Your task to perform on an android device: add a contact in the contacts app Image 0: 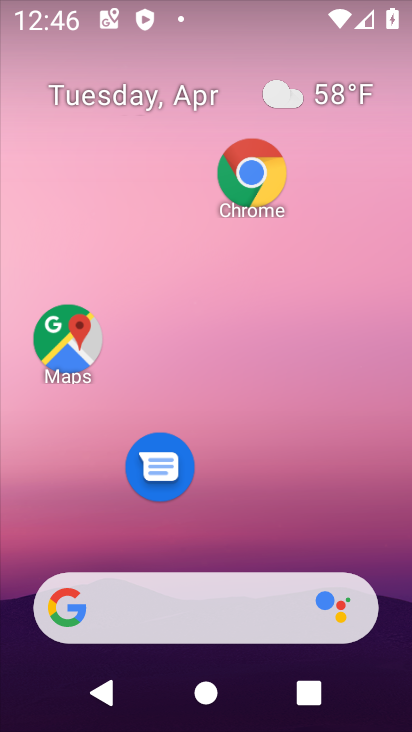
Step 0: drag from (272, 428) to (302, 51)
Your task to perform on an android device: add a contact in the contacts app Image 1: 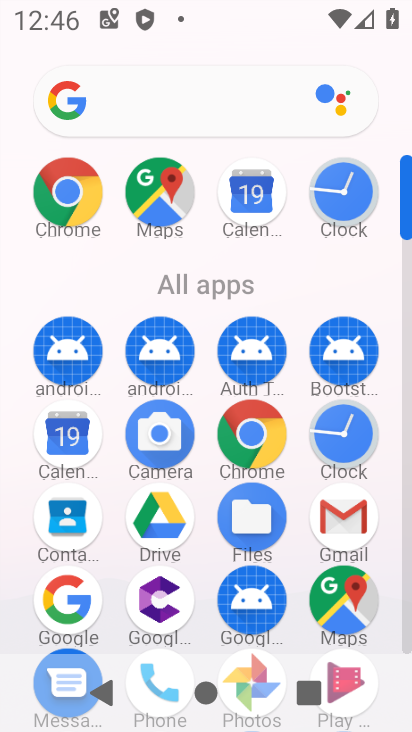
Step 1: click (43, 526)
Your task to perform on an android device: add a contact in the contacts app Image 2: 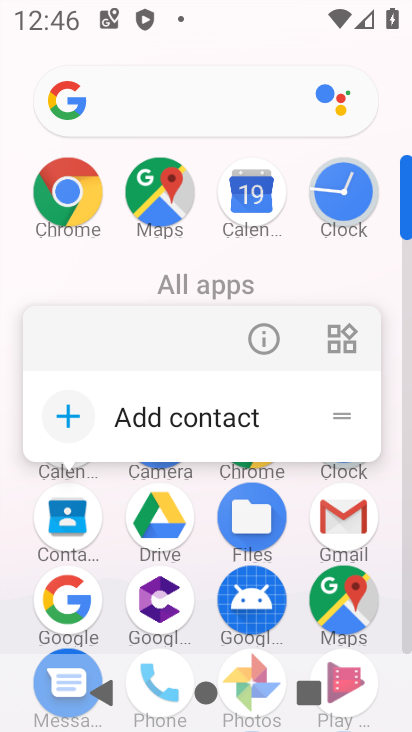
Step 2: click (74, 504)
Your task to perform on an android device: add a contact in the contacts app Image 3: 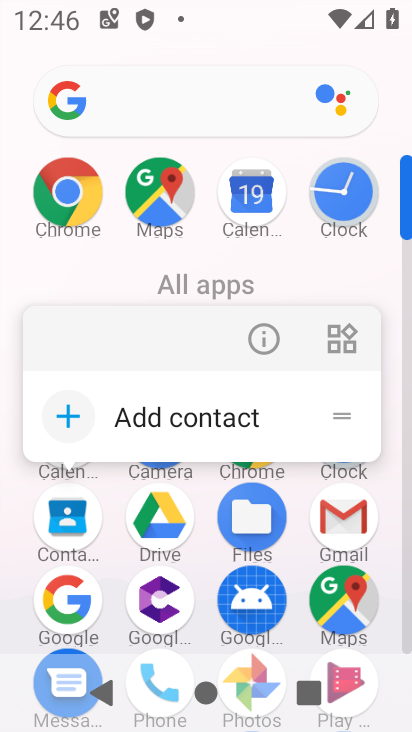
Step 3: click (74, 504)
Your task to perform on an android device: add a contact in the contacts app Image 4: 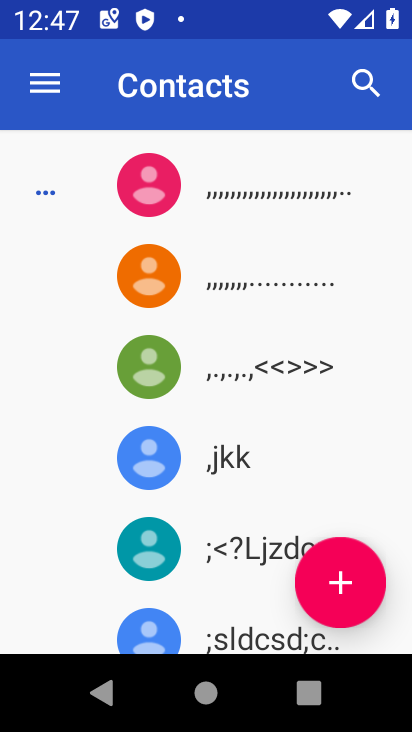
Step 4: click (354, 581)
Your task to perform on an android device: add a contact in the contacts app Image 5: 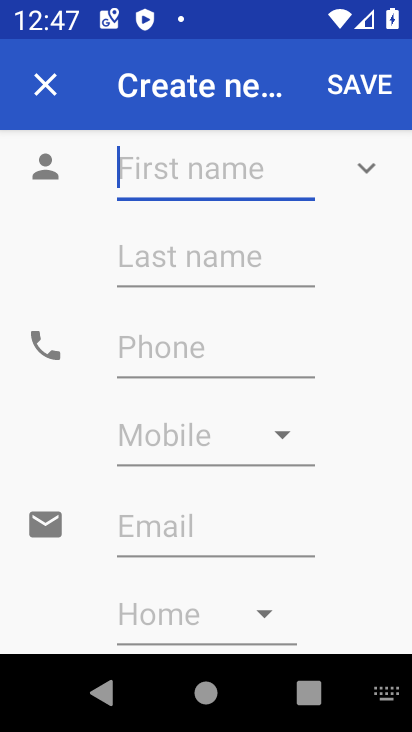
Step 5: type "jnjjnnnkj"
Your task to perform on an android device: add a contact in the contacts app Image 6: 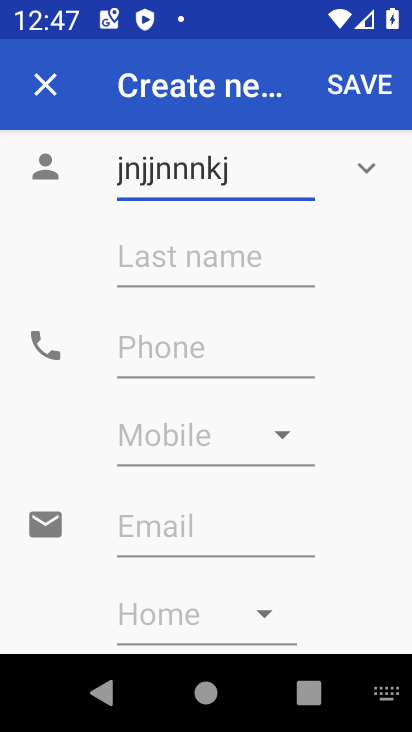
Step 6: click (213, 340)
Your task to perform on an android device: add a contact in the contacts app Image 7: 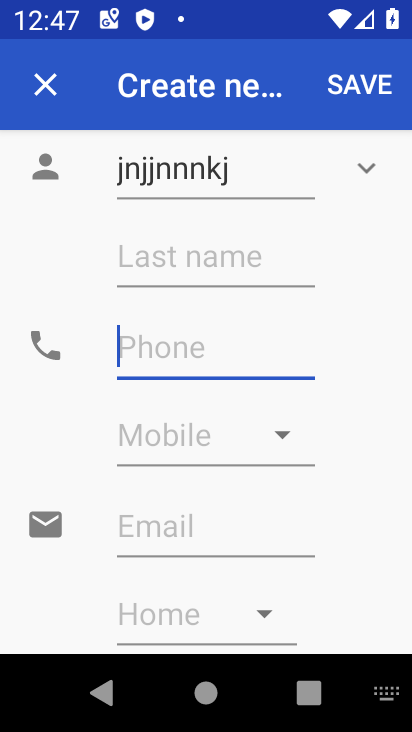
Step 7: type "87898777889"
Your task to perform on an android device: add a contact in the contacts app Image 8: 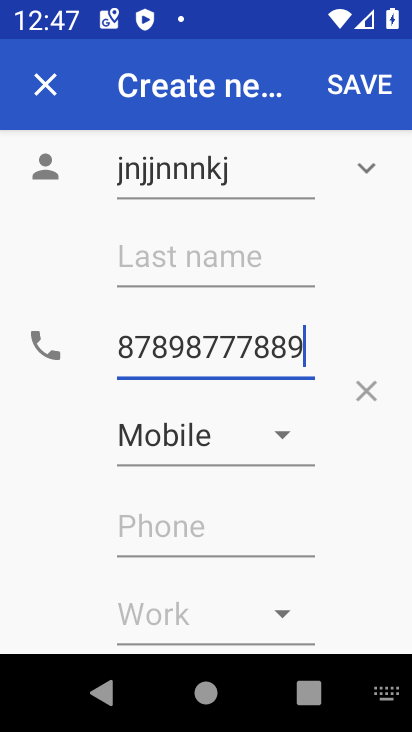
Step 8: click (383, 84)
Your task to perform on an android device: add a contact in the contacts app Image 9: 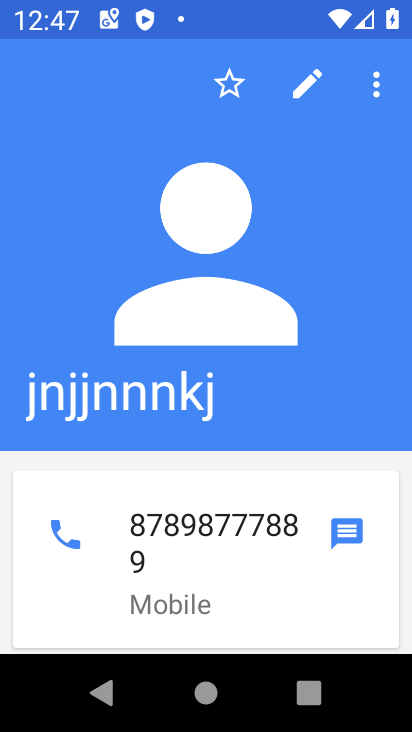
Step 9: task complete